Your task to perform on an android device: Open Reddit.com Image 0: 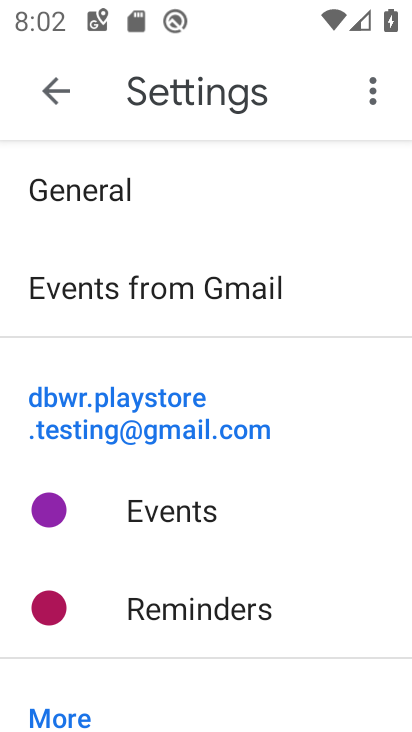
Step 0: press back button
Your task to perform on an android device: Open Reddit.com Image 1: 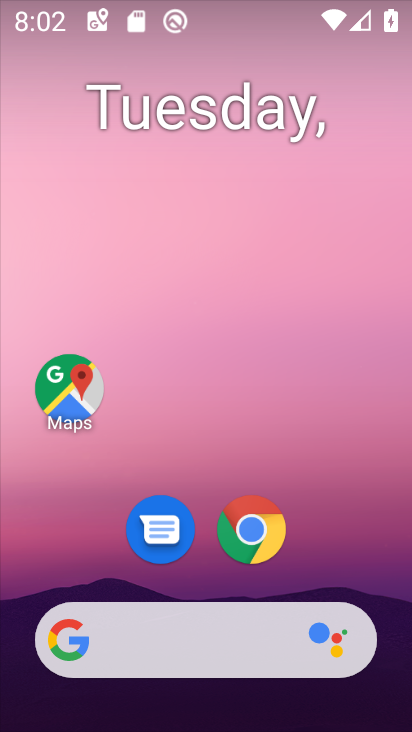
Step 1: click (269, 517)
Your task to perform on an android device: Open Reddit.com Image 2: 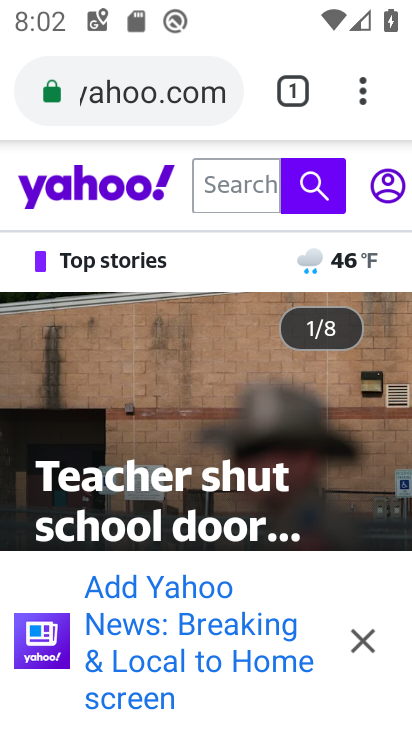
Step 2: click (299, 86)
Your task to perform on an android device: Open Reddit.com Image 3: 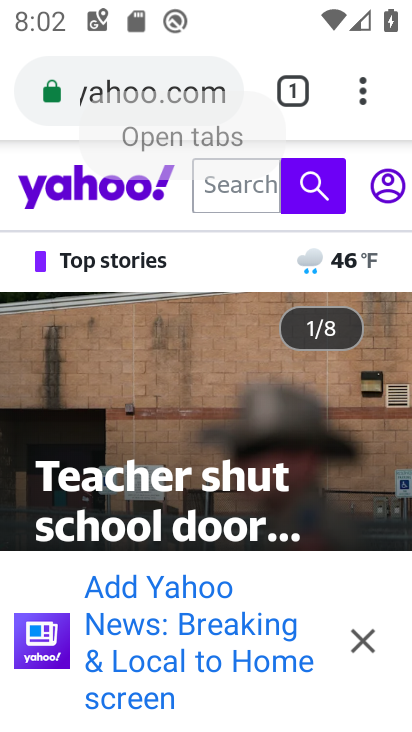
Step 3: click (292, 89)
Your task to perform on an android device: Open Reddit.com Image 4: 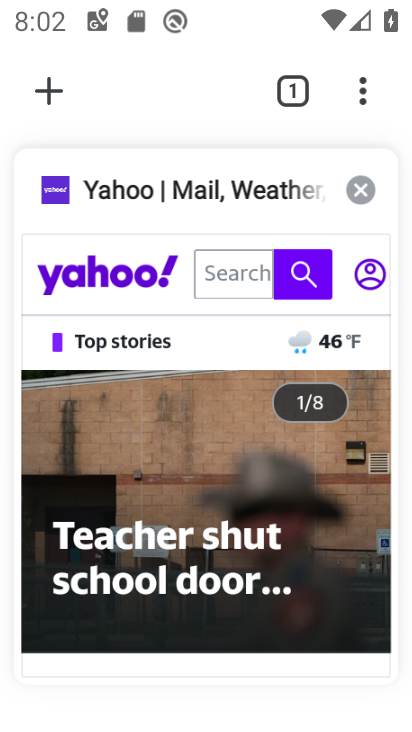
Step 4: click (44, 96)
Your task to perform on an android device: Open Reddit.com Image 5: 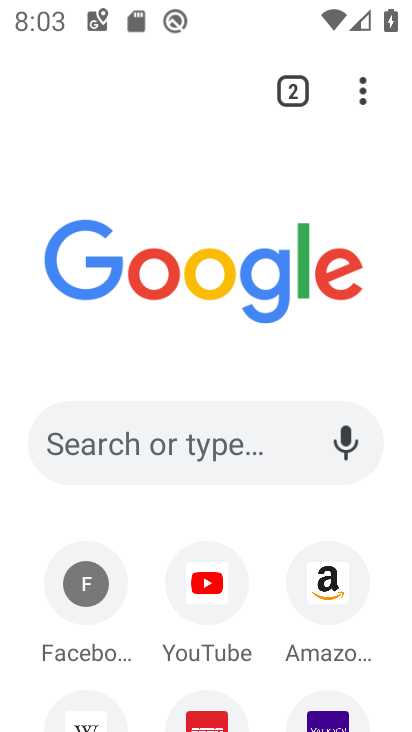
Step 5: click (143, 447)
Your task to perform on an android device: Open Reddit.com Image 6: 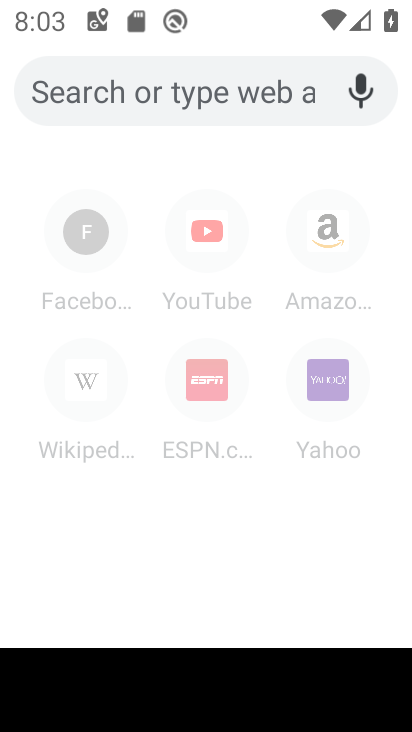
Step 6: type "reddit.com"
Your task to perform on an android device: Open Reddit.com Image 7: 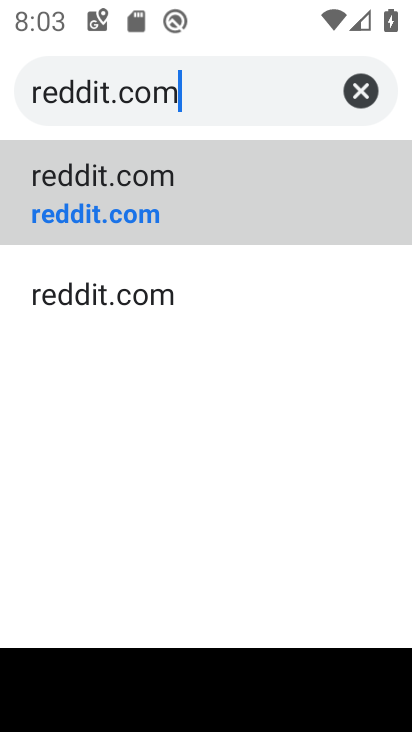
Step 7: click (239, 209)
Your task to perform on an android device: Open Reddit.com Image 8: 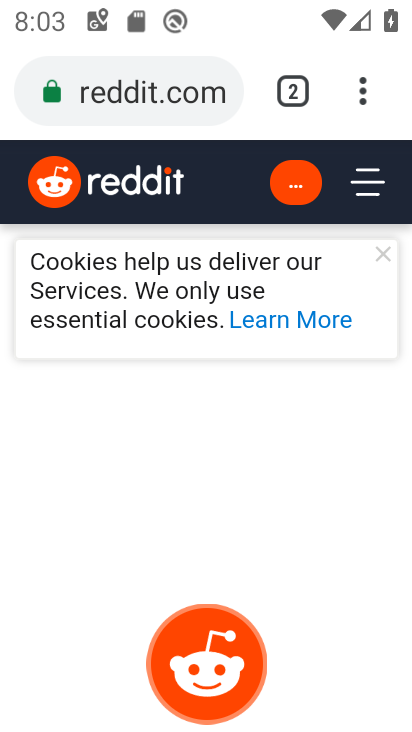
Step 8: task complete